Your task to perform on an android device: Go to Wikipedia Image 0: 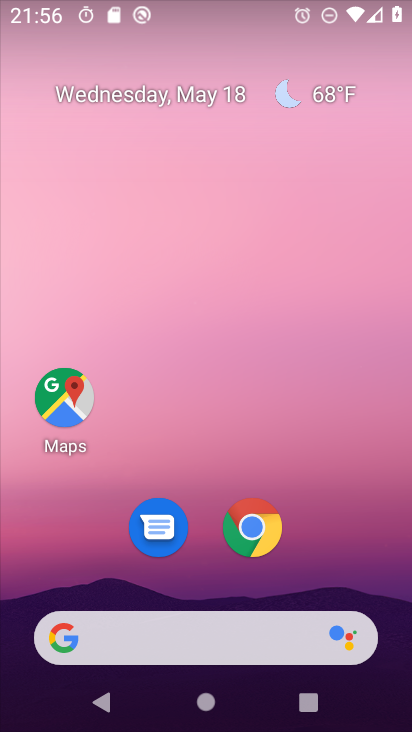
Step 0: drag from (389, 678) to (359, 221)
Your task to perform on an android device: Go to Wikipedia Image 1: 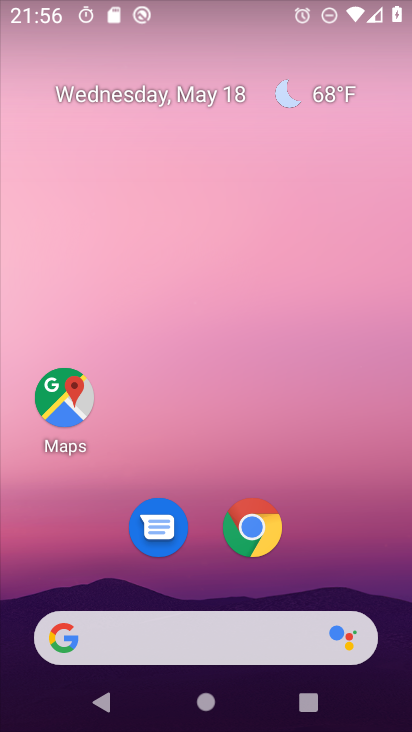
Step 1: drag from (394, 697) to (356, 179)
Your task to perform on an android device: Go to Wikipedia Image 2: 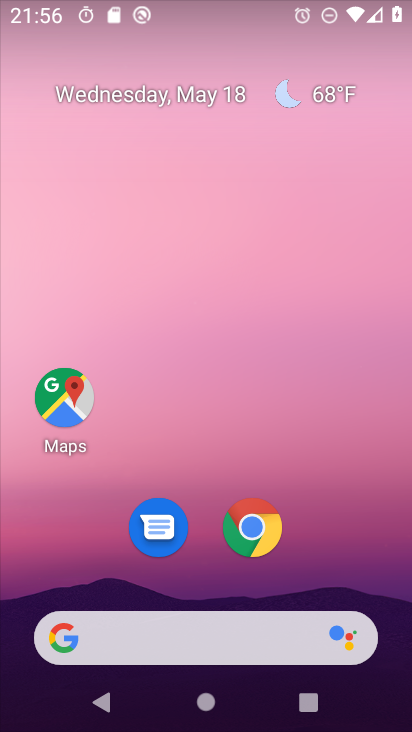
Step 2: drag from (389, 651) to (384, 417)
Your task to perform on an android device: Go to Wikipedia Image 3: 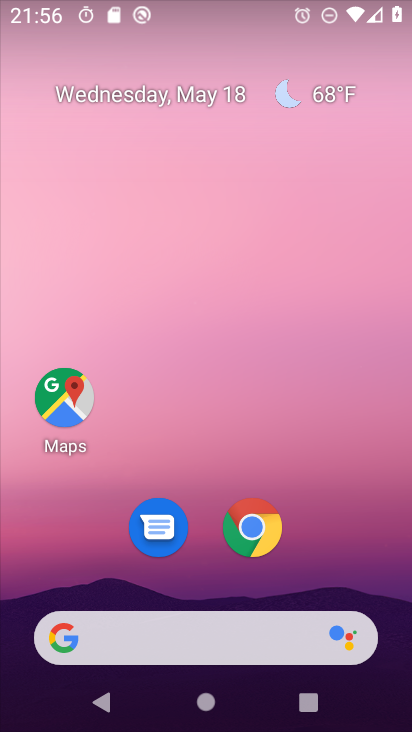
Step 3: drag from (374, 347) to (371, 257)
Your task to perform on an android device: Go to Wikipedia Image 4: 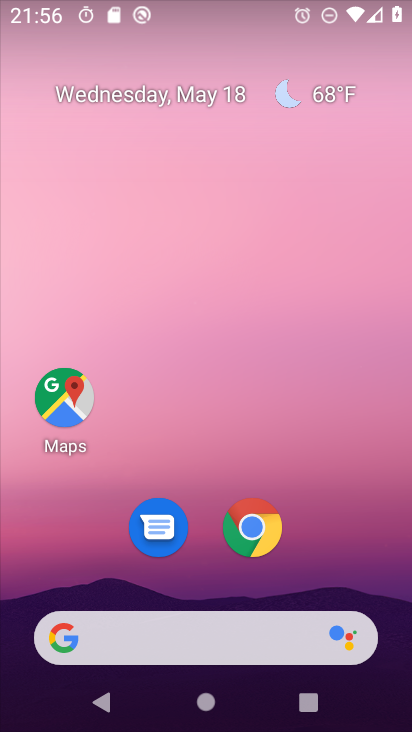
Step 4: click (260, 522)
Your task to perform on an android device: Go to Wikipedia Image 5: 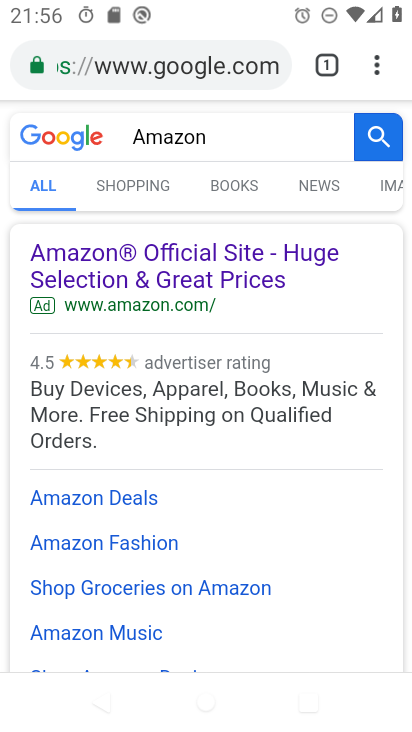
Step 5: click (280, 63)
Your task to perform on an android device: Go to Wikipedia Image 6: 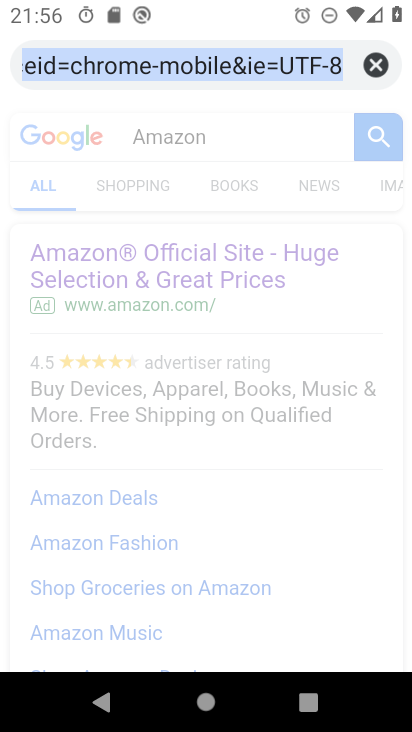
Step 6: click (375, 58)
Your task to perform on an android device: Go to Wikipedia Image 7: 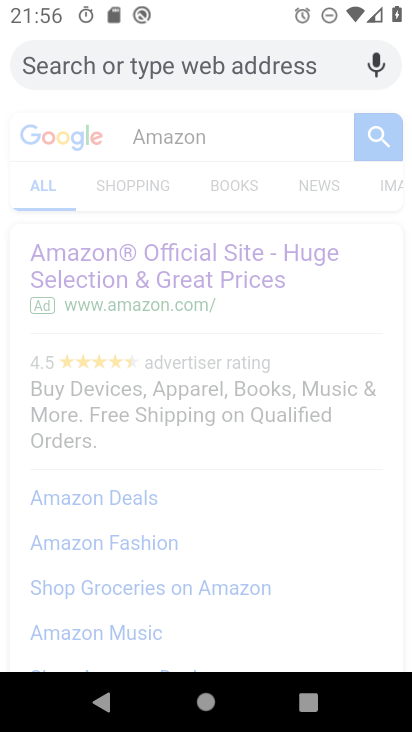
Step 7: type "Wikipedia"
Your task to perform on an android device: Go to Wikipedia Image 8: 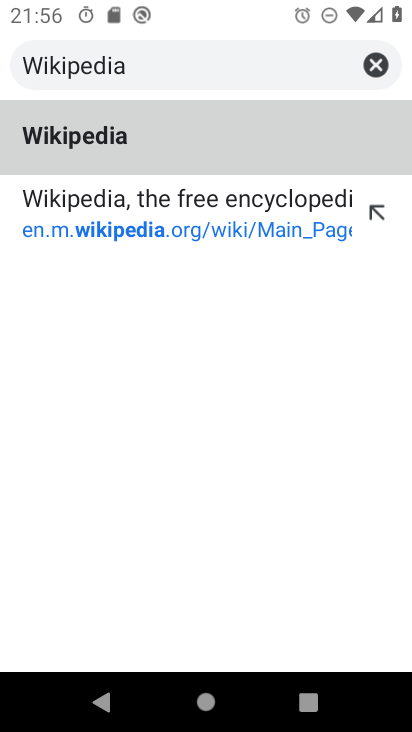
Step 8: click (105, 139)
Your task to perform on an android device: Go to Wikipedia Image 9: 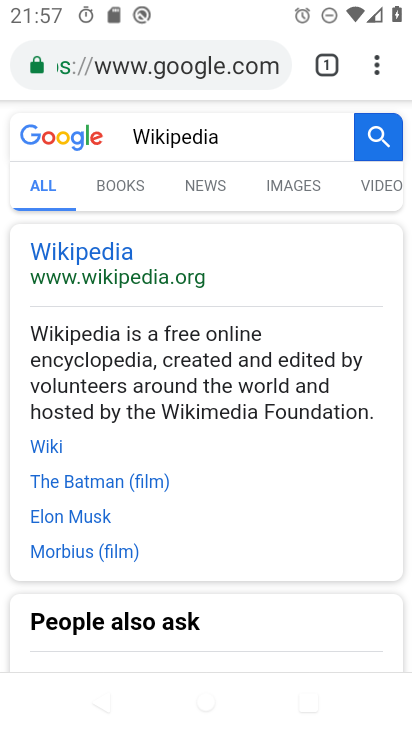
Step 9: task complete